Your task to perform on an android device: snooze an email in the gmail app Image 0: 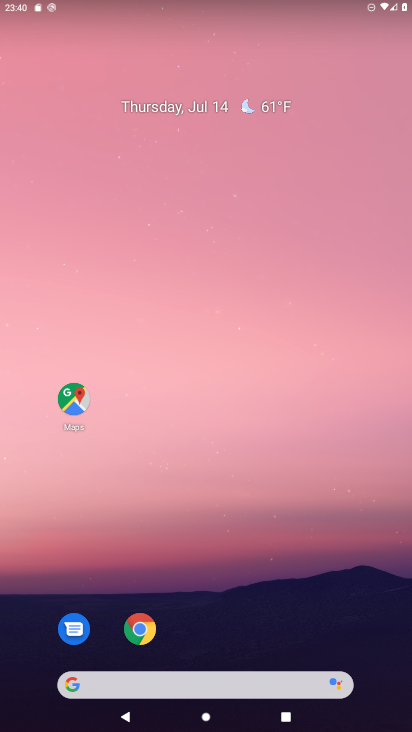
Step 0: drag from (222, 615) to (244, 83)
Your task to perform on an android device: snooze an email in the gmail app Image 1: 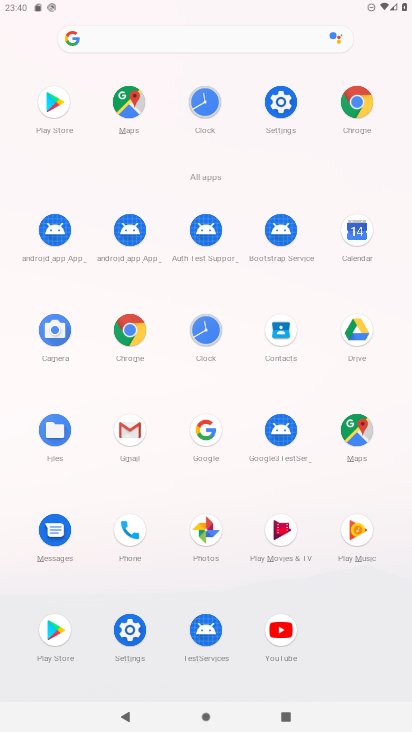
Step 1: click (128, 444)
Your task to perform on an android device: snooze an email in the gmail app Image 2: 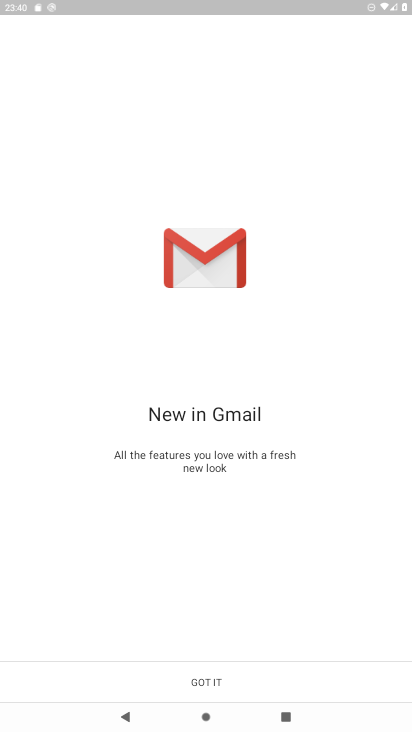
Step 2: click (284, 695)
Your task to perform on an android device: snooze an email in the gmail app Image 3: 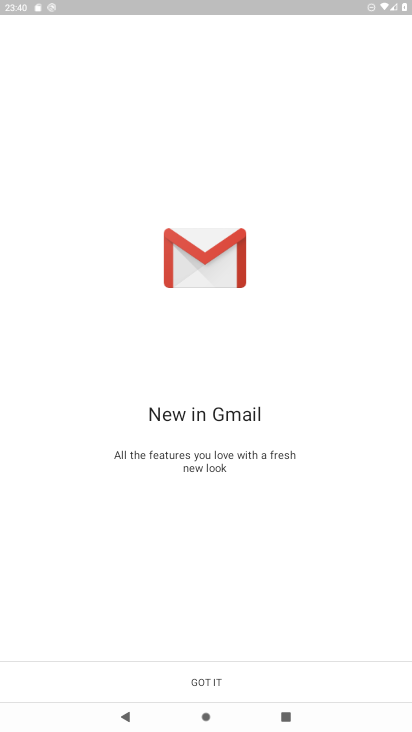
Step 3: click (284, 695)
Your task to perform on an android device: snooze an email in the gmail app Image 4: 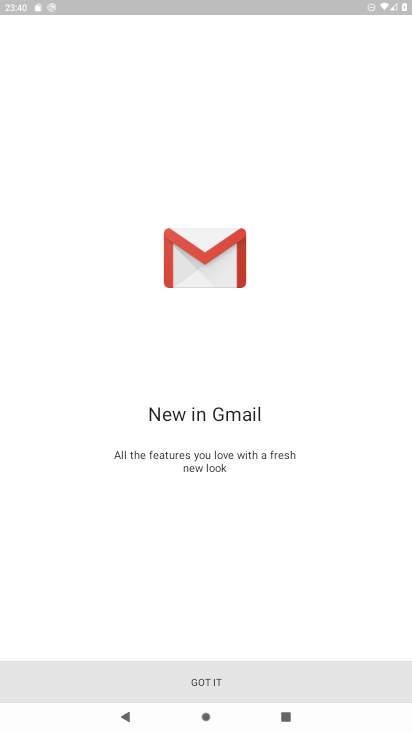
Step 4: click (284, 695)
Your task to perform on an android device: snooze an email in the gmail app Image 5: 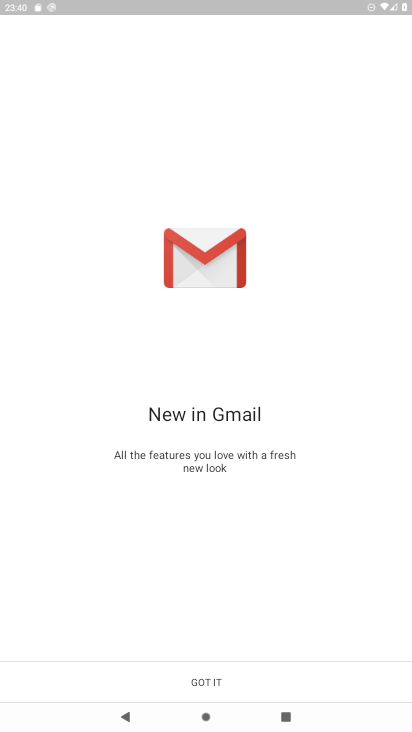
Step 5: click (284, 695)
Your task to perform on an android device: snooze an email in the gmail app Image 6: 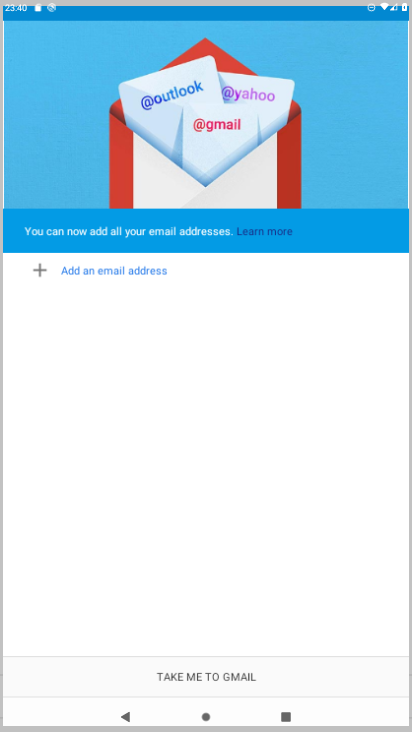
Step 6: click (284, 695)
Your task to perform on an android device: snooze an email in the gmail app Image 7: 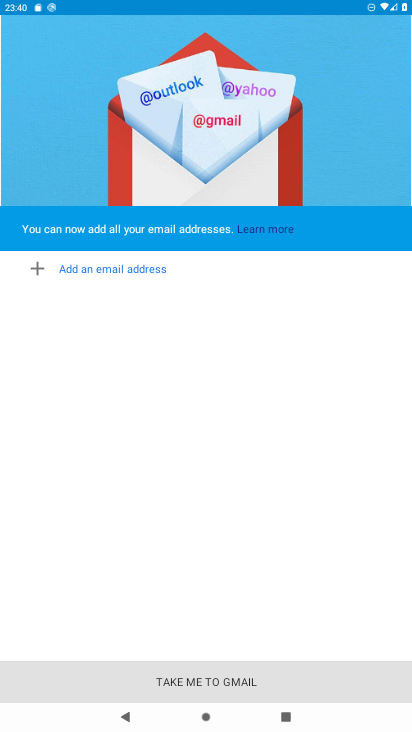
Step 7: click (284, 695)
Your task to perform on an android device: snooze an email in the gmail app Image 8: 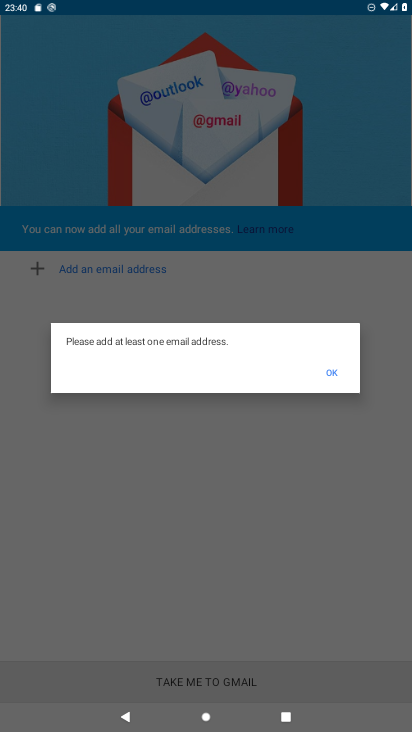
Step 8: click (284, 695)
Your task to perform on an android device: snooze an email in the gmail app Image 9: 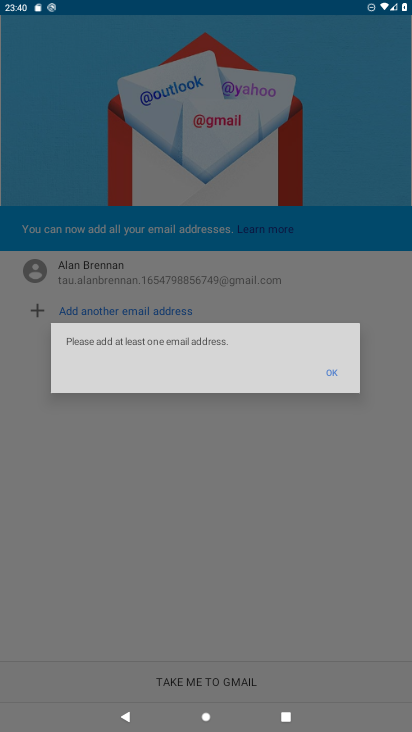
Step 9: click (284, 695)
Your task to perform on an android device: snooze an email in the gmail app Image 10: 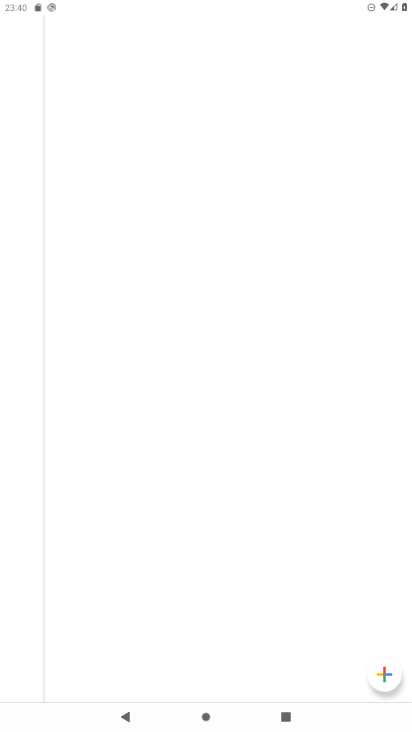
Step 10: click (332, 372)
Your task to perform on an android device: snooze an email in the gmail app Image 11: 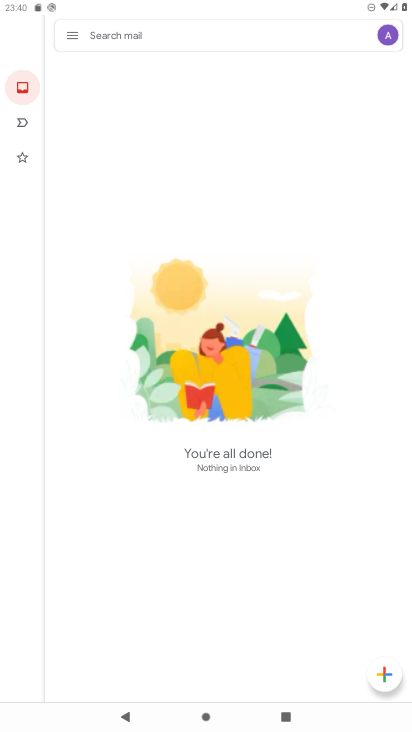
Step 11: task complete